Your task to perform on an android device: Go to notification settings Image 0: 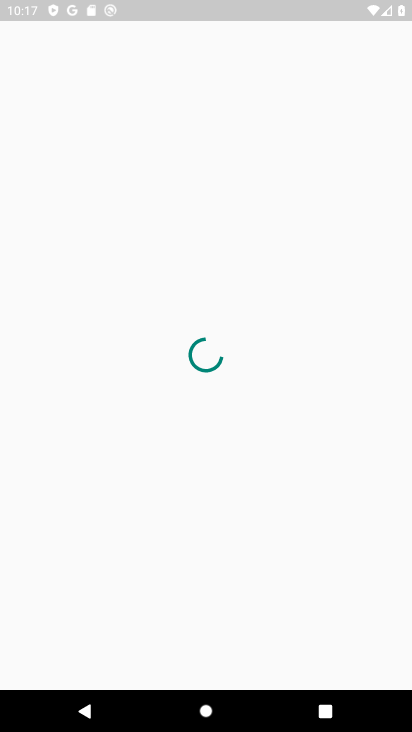
Step 0: press home button
Your task to perform on an android device: Go to notification settings Image 1: 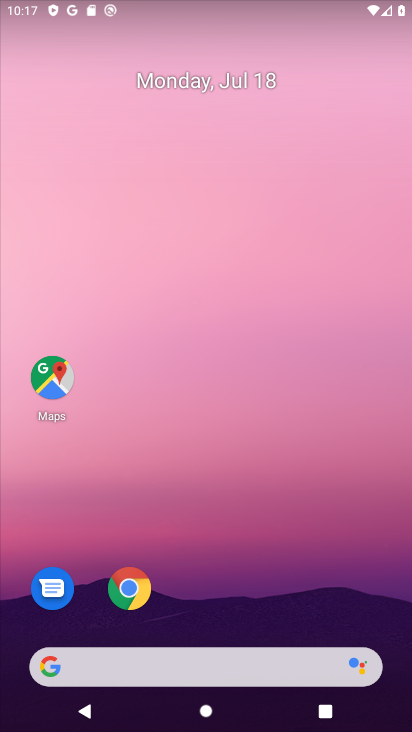
Step 1: drag from (289, 531) to (238, 22)
Your task to perform on an android device: Go to notification settings Image 2: 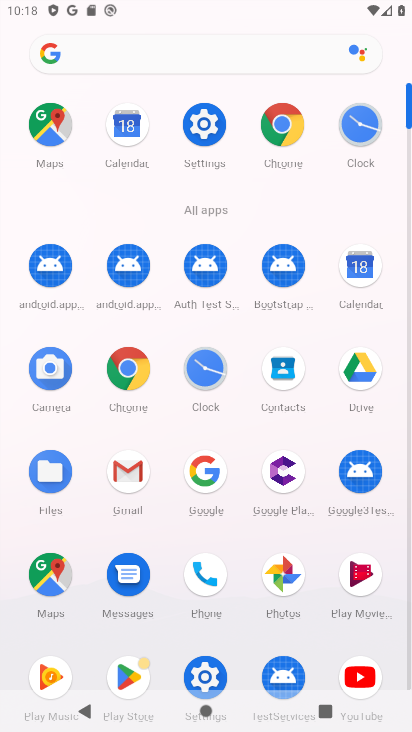
Step 2: click (188, 662)
Your task to perform on an android device: Go to notification settings Image 3: 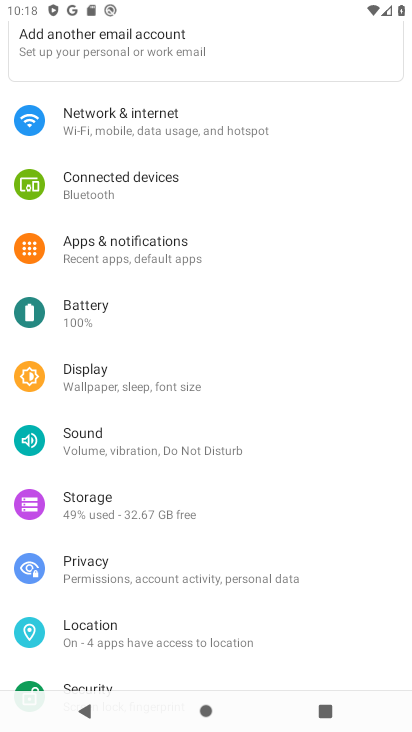
Step 3: click (191, 268)
Your task to perform on an android device: Go to notification settings Image 4: 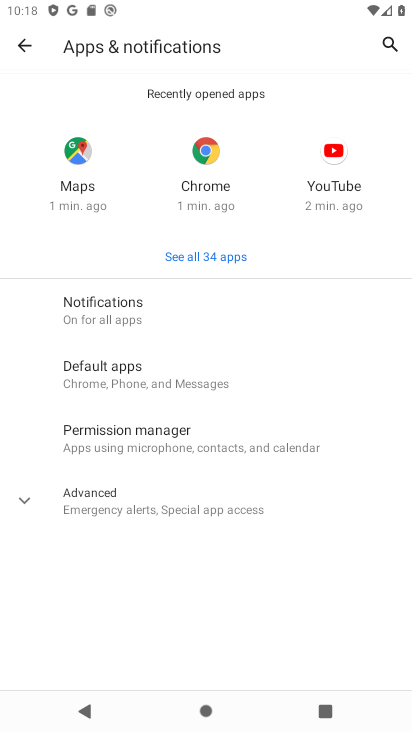
Step 4: click (99, 313)
Your task to perform on an android device: Go to notification settings Image 5: 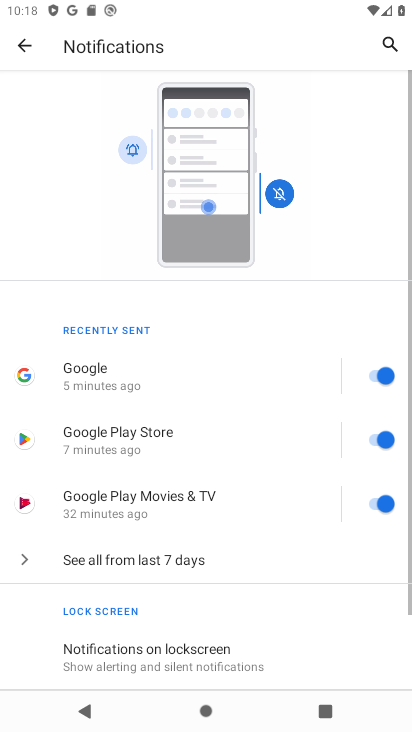
Step 5: task complete